Your task to perform on an android device: turn pop-ups off in chrome Image 0: 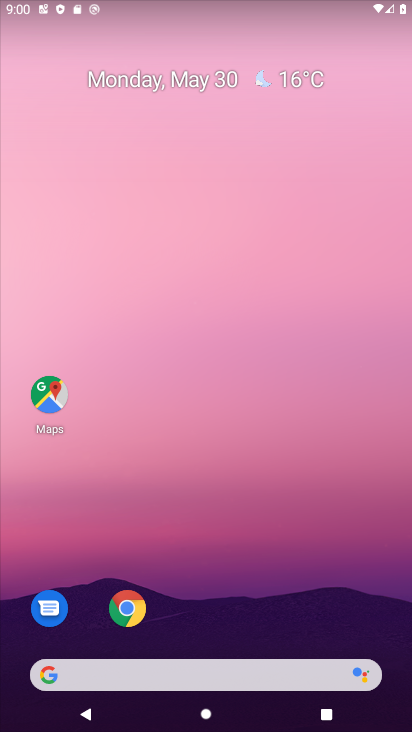
Step 0: click (125, 604)
Your task to perform on an android device: turn pop-ups off in chrome Image 1: 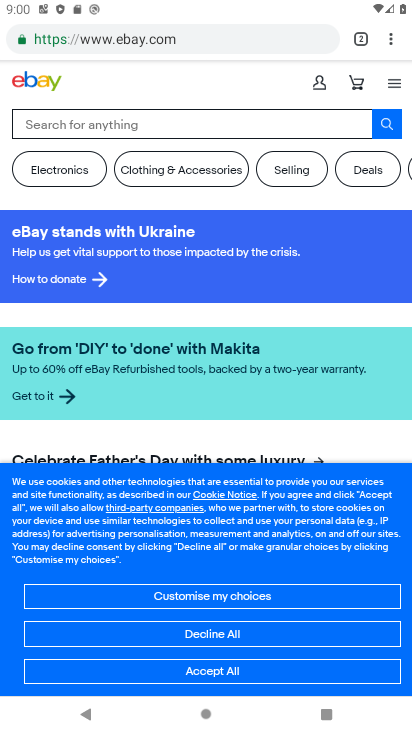
Step 1: click (385, 30)
Your task to perform on an android device: turn pop-ups off in chrome Image 2: 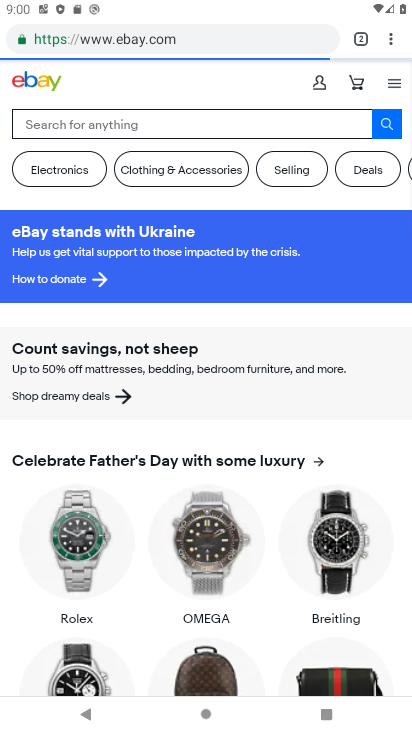
Step 2: click (390, 31)
Your task to perform on an android device: turn pop-ups off in chrome Image 3: 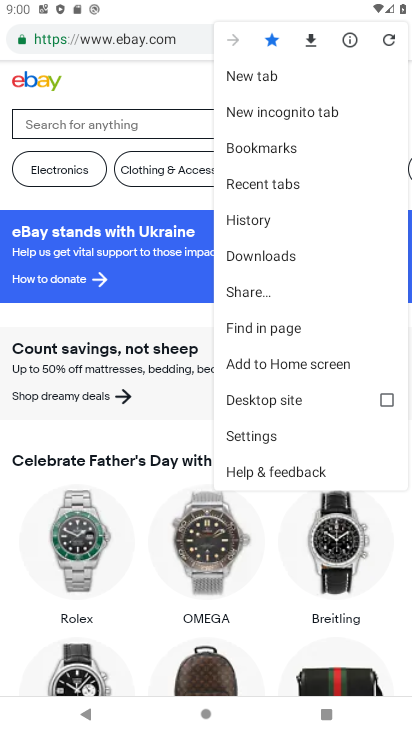
Step 3: click (250, 433)
Your task to perform on an android device: turn pop-ups off in chrome Image 4: 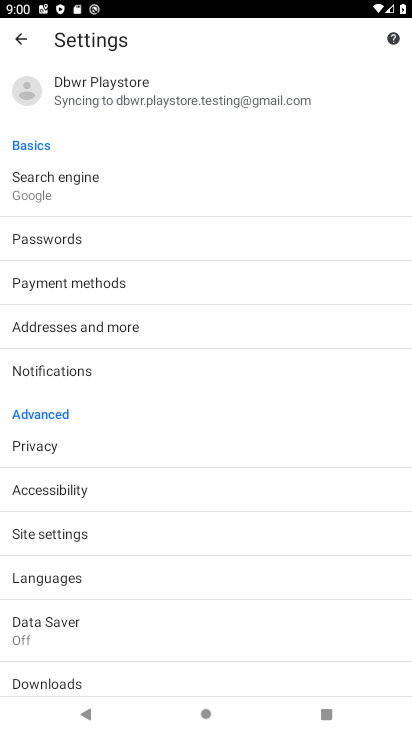
Step 4: drag from (205, 630) to (201, 287)
Your task to perform on an android device: turn pop-ups off in chrome Image 5: 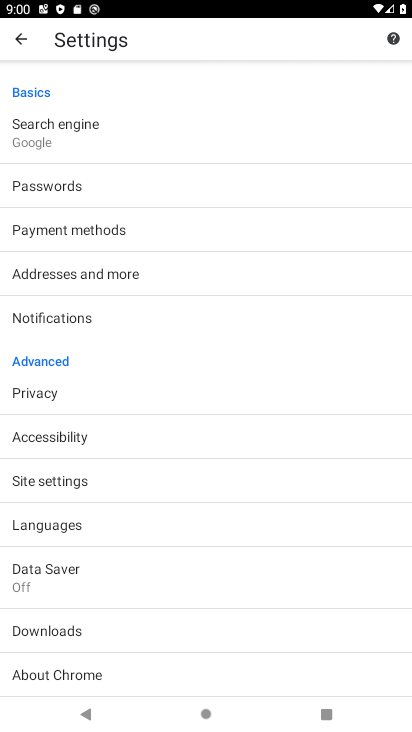
Step 5: drag from (164, 671) to (156, 366)
Your task to perform on an android device: turn pop-ups off in chrome Image 6: 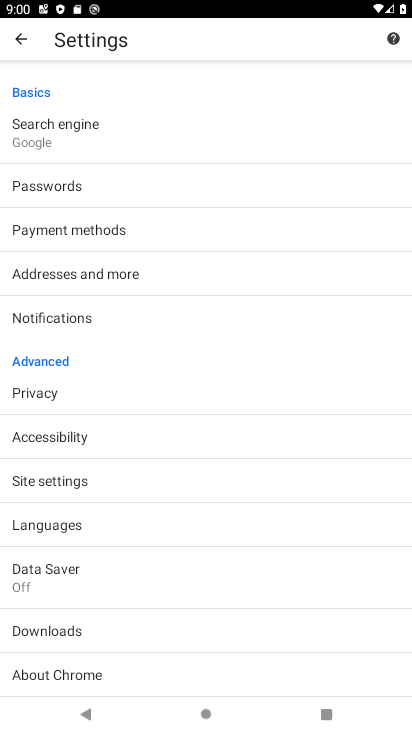
Step 6: click (57, 485)
Your task to perform on an android device: turn pop-ups off in chrome Image 7: 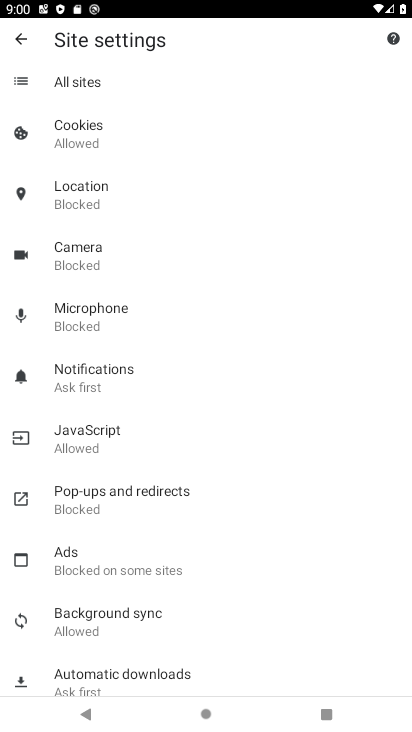
Step 7: click (98, 490)
Your task to perform on an android device: turn pop-ups off in chrome Image 8: 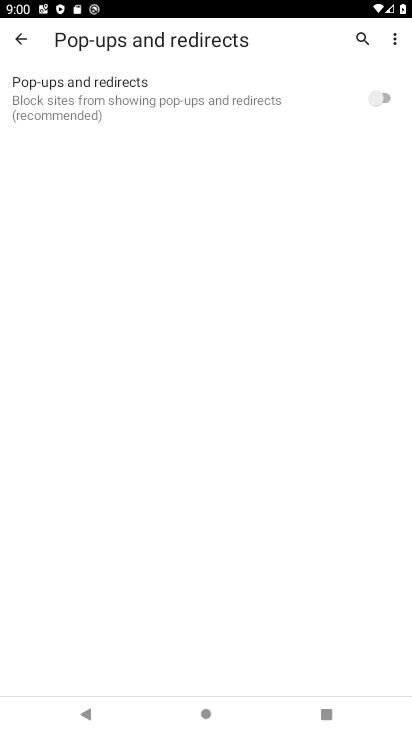
Step 8: task complete